Your task to perform on an android device: Open the calendar and show me this week's events? Image 0: 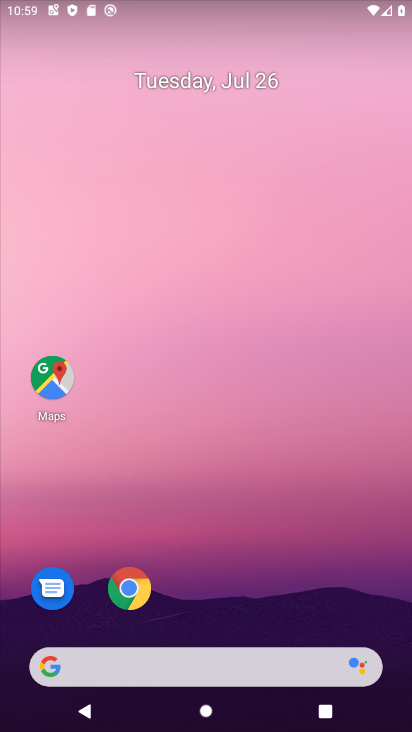
Step 0: drag from (278, 592) to (358, 337)
Your task to perform on an android device: Open the calendar and show me this week's events? Image 1: 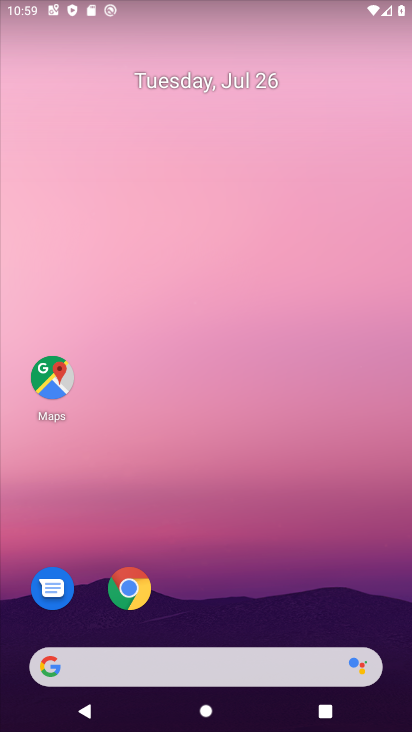
Step 1: drag from (281, 523) to (293, 126)
Your task to perform on an android device: Open the calendar and show me this week's events? Image 2: 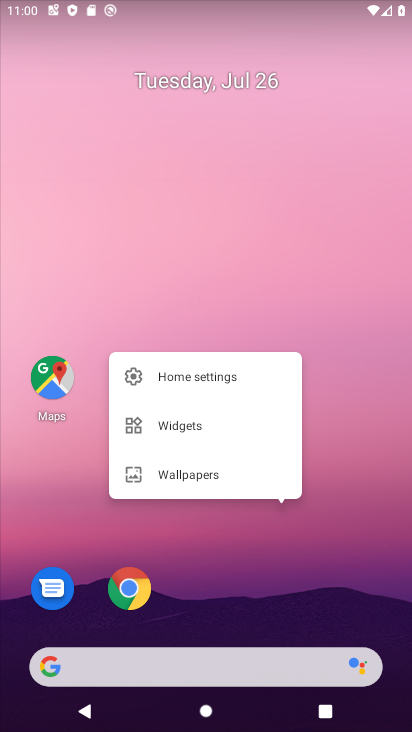
Step 2: click (337, 432)
Your task to perform on an android device: Open the calendar and show me this week's events? Image 3: 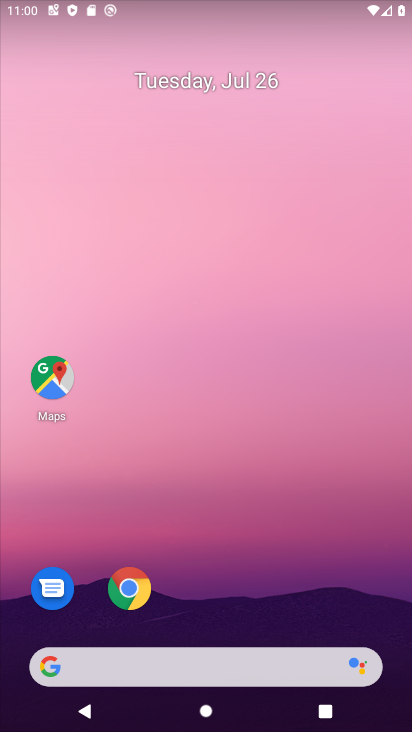
Step 3: drag from (249, 503) to (345, 120)
Your task to perform on an android device: Open the calendar and show me this week's events? Image 4: 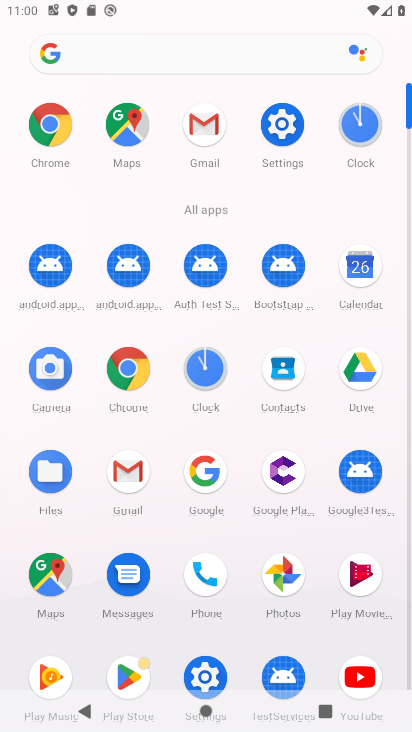
Step 4: click (358, 284)
Your task to perform on an android device: Open the calendar and show me this week's events? Image 5: 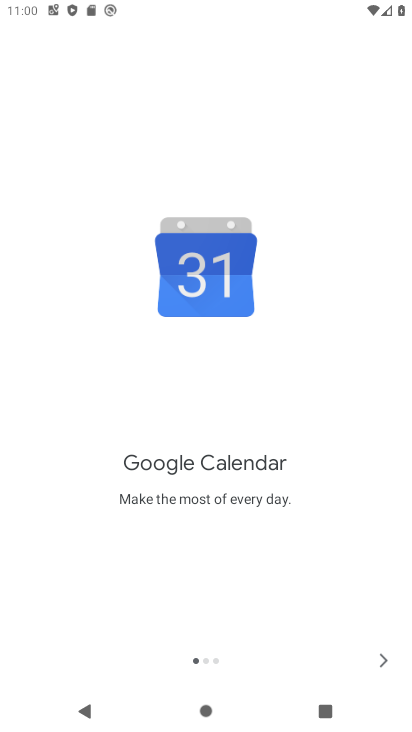
Step 5: click (383, 665)
Your task to perform on an android device: Open the calendar and show me this week's events? Image 6: 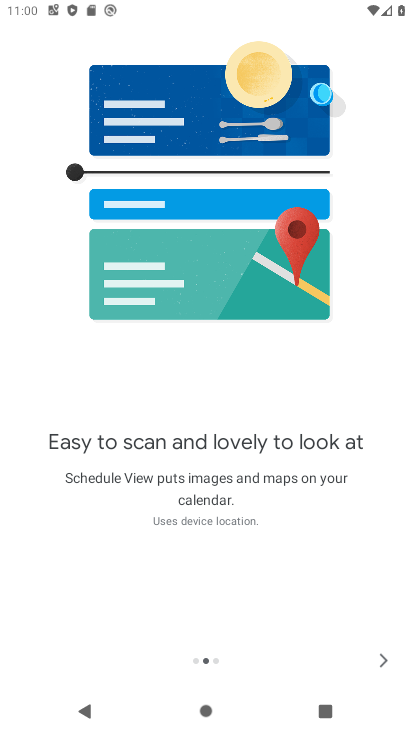
Step 6: click (383, 665)
Your task to perform on an android device: Open the calendar and show me this week's events? Image 7: 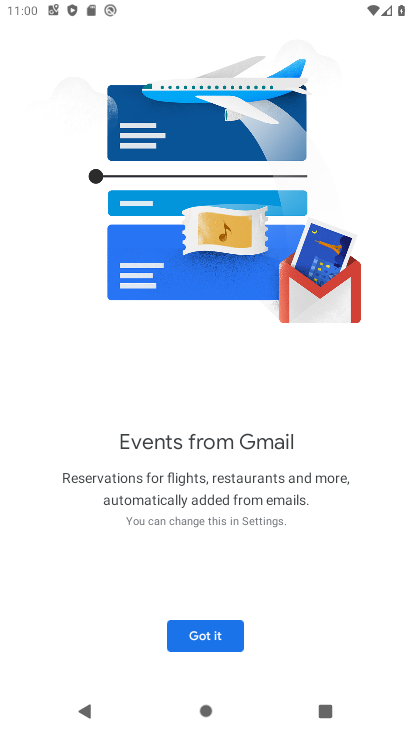
Step 7: click (383, 665)
Your task to perform on an android device: Open the calendar and show me this week's events? Image 8: 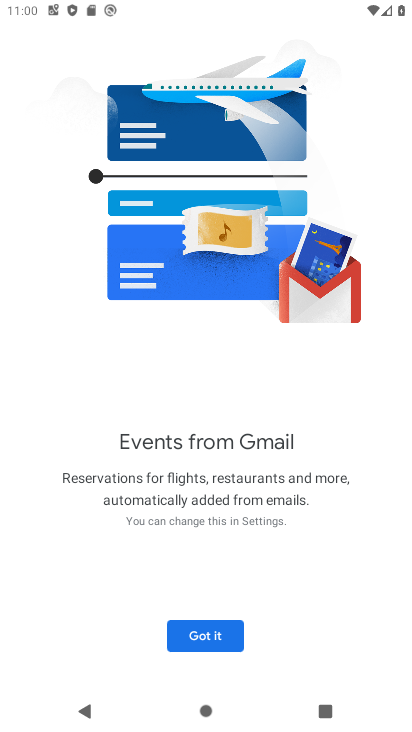
Step 8: click (212, 630)
Your task to perform on an android device: Open the calendar and show me this week's events? Image 9: 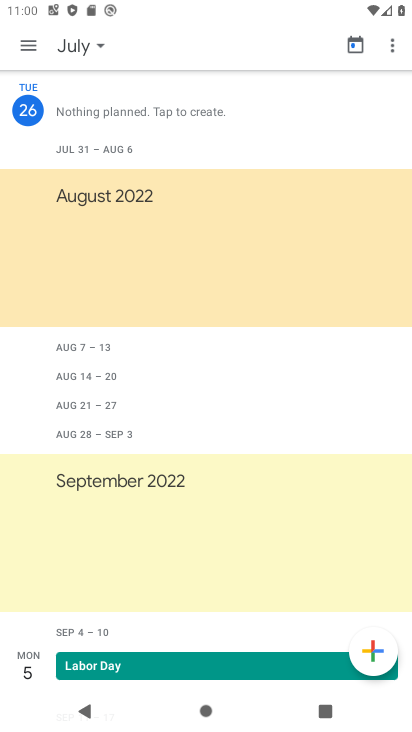
Step 9: task complete